Your task to perform on an android device: show emergency info Image 0: 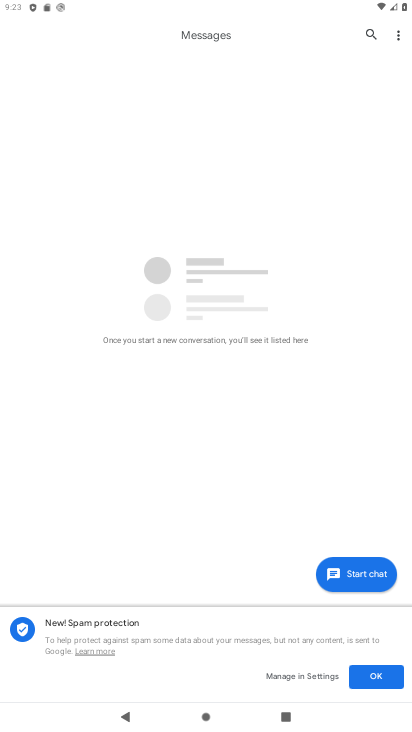
Step 0: press home button
Your task to perform on an android device: show emergency info Image 1: 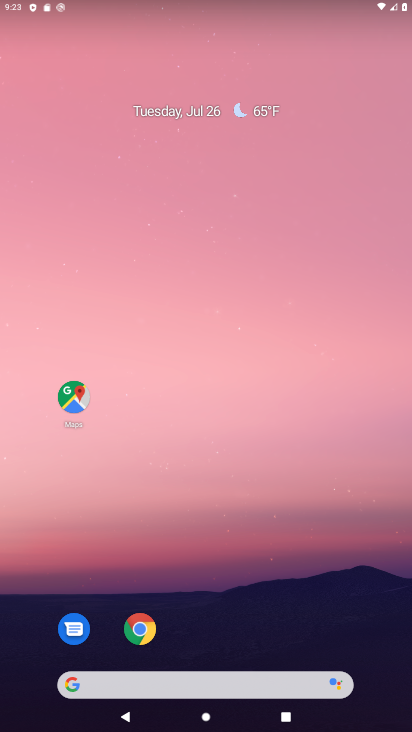
Step 1: drag from (250, 542) to (192, 90)
Your task to perform on an android device: show emergency info Image 2: 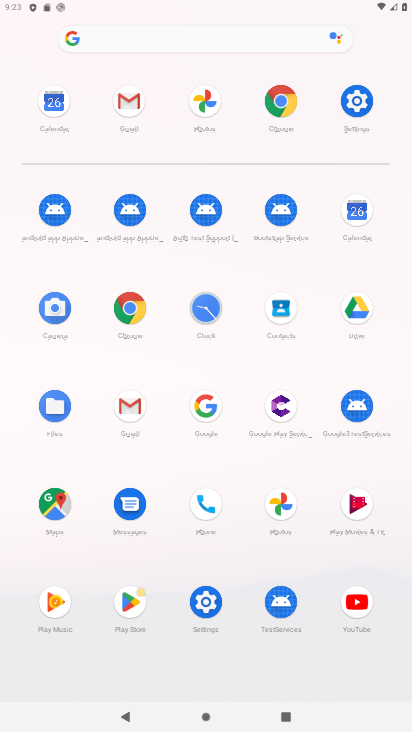
Step 2: click (364, 107)
Your task to perform on an android device: show emergency info Image 3: 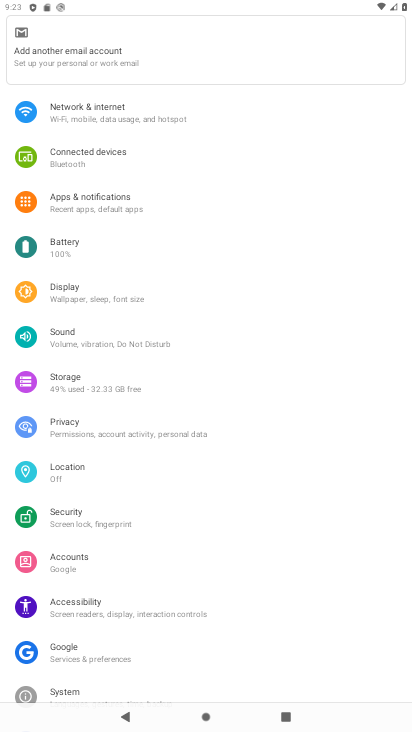
Step 3: drag from (226, 558) to (216, 126)
Your task to perform on an android device: show emergency info Image 4: 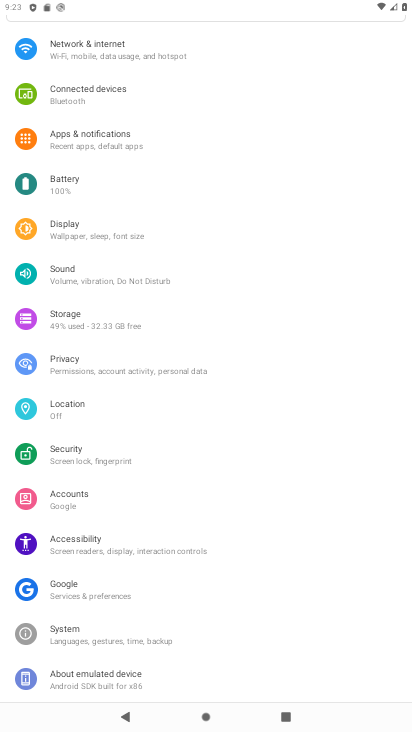
Step 4: click (129, 678)
Your task to perform on an android device: show emergency info Image 5: 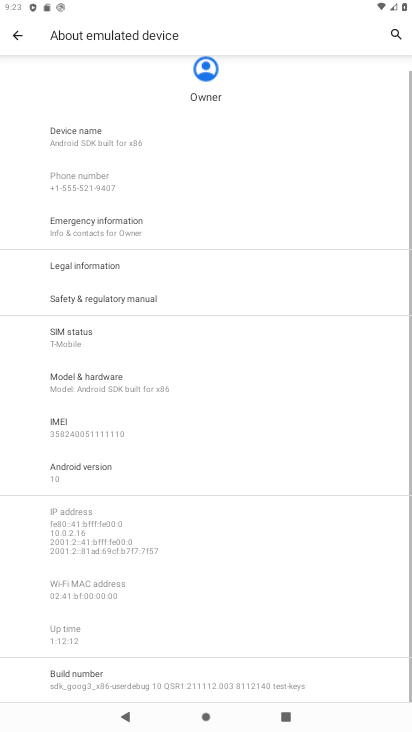
Step 5: click (144, 236)
Your task to perform on an android device: show emergency info Image 6: 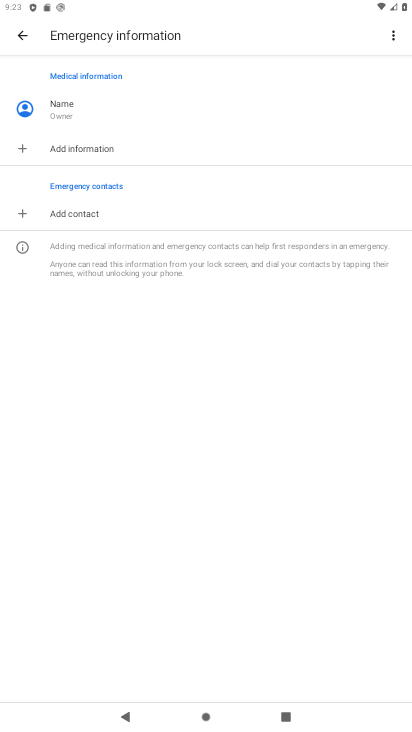
Step 6: task complete